Your task to perform on an android device: Open Android settings Image 0: 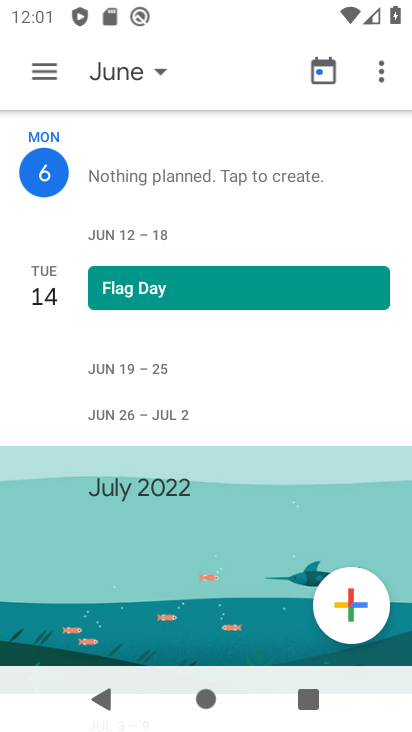
Step 0: press home button
Your task to perform on an android device: Open Android settings Image 1: 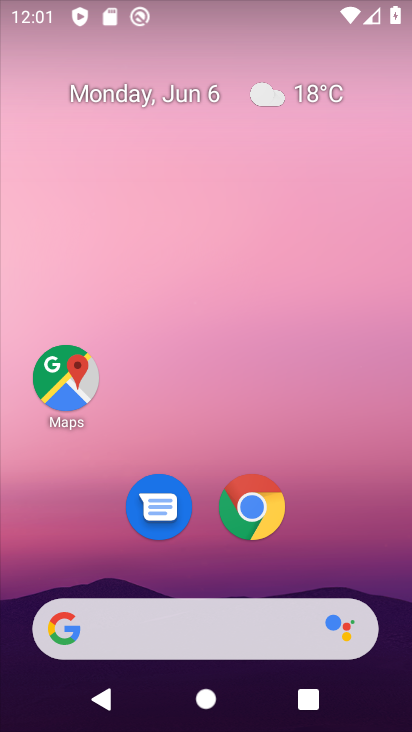
Step 1: drag from (178, 545) to (320, 103)
Your task to perform on an android device: Open Android settings Image 2: 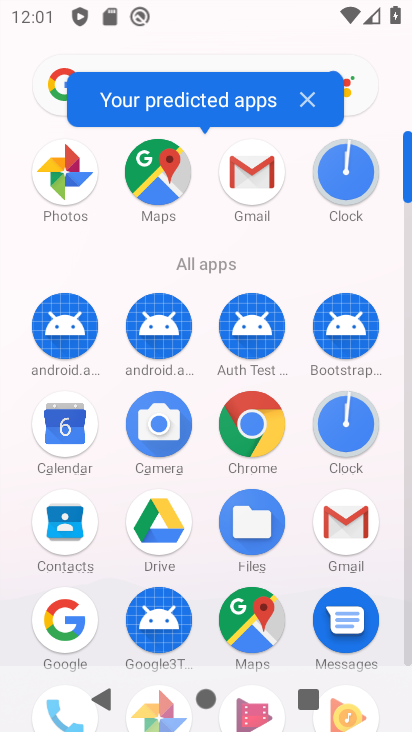
Step 2: drag from (195, 602) to (252, 251)
Your task to perform on an android device: Open Android settings Image 3: 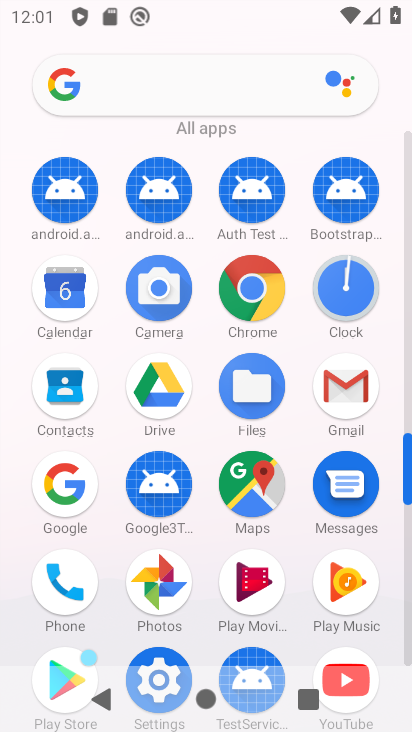
Step 3: drag from (202, 569) to (247, 346)
Your task to perform on an android device: Open Android settings Image 4: 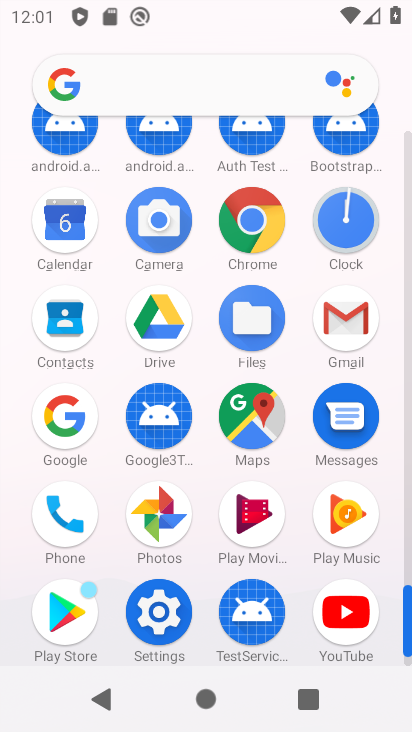
Step 4: click (164, 610)
Your task to perform on an android device: Open Android settings Image 5: 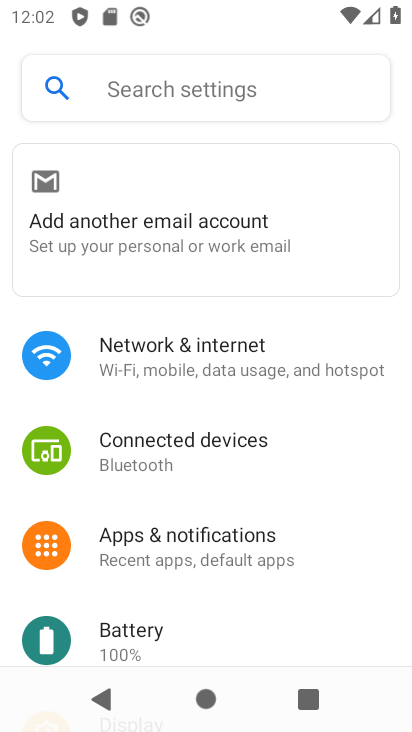
Step 5: task complete